Your task to perform on an android device: Search for seafood restaurants on Google Maps Image 0: 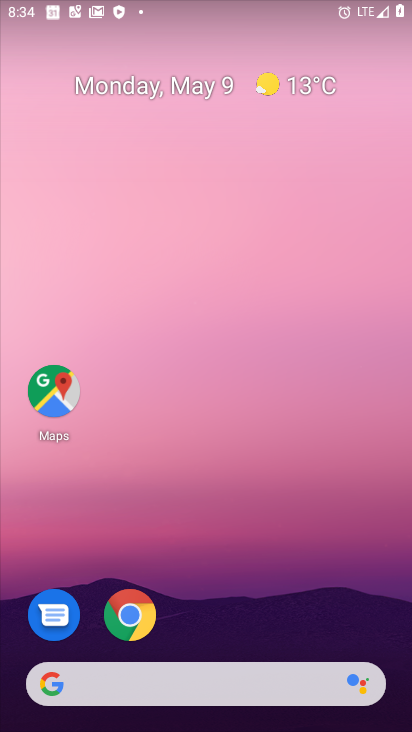
Step 0: click (65, 380)
Your task to perform on an android device: Search for seafood restaurants on Google Maps Image 1: 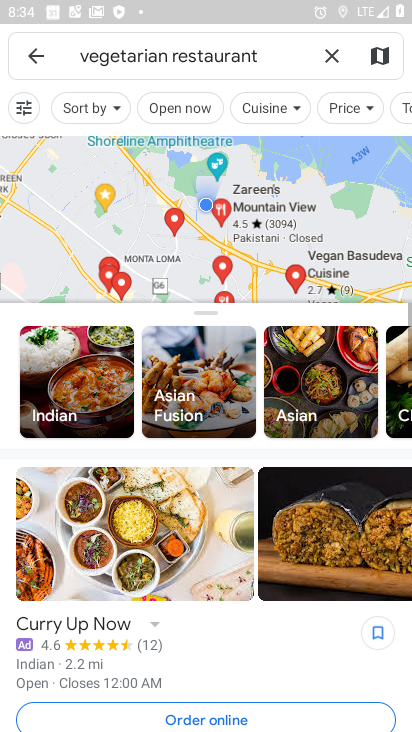
Step 1: click (340, 57)
Your task to perform on an android device: Search for seafood restaurants on Google Maps Image 2: 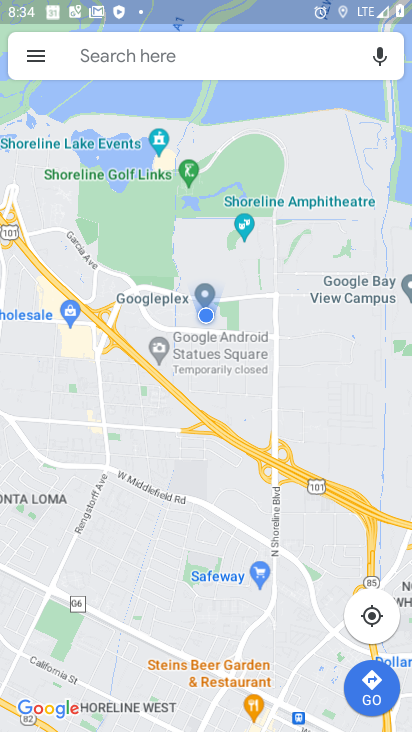
Step 2: click (138, 61)
Your task to perform on an android device: Search for seafood restaurants on Google Maps Image 3: 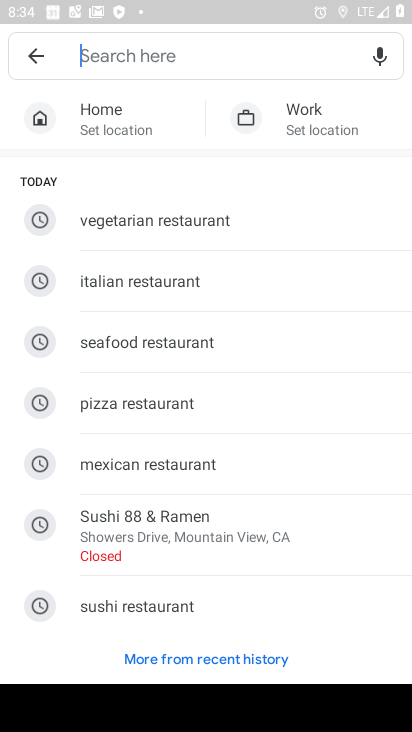
Step 3: click (209, 329)
Your task to perform on an android device: Search for seafood restaurants on Google Maps Image 4: 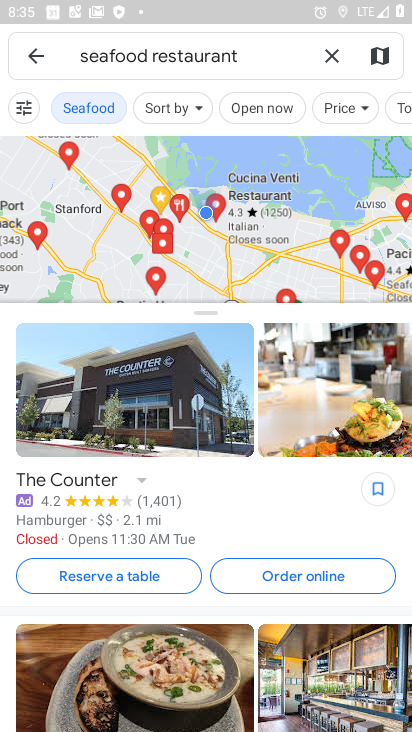
Step 4: task complete